Your task to perform on an android device: turn off wifi Image 0: 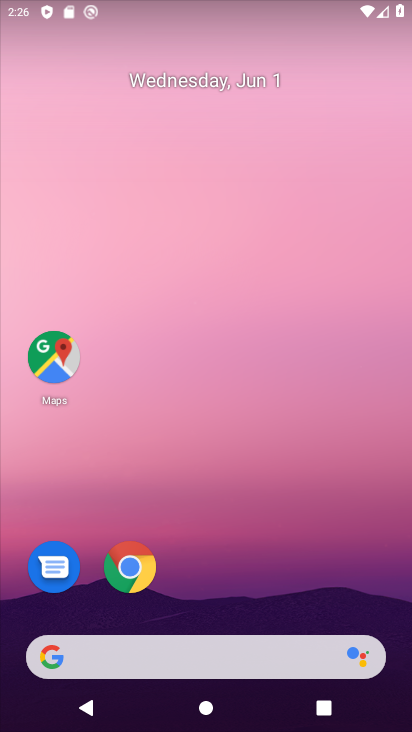
Step 0: drag from (184, 179) to (268, 614)
Your task to perform on an android device: turn off wifi Image 1: 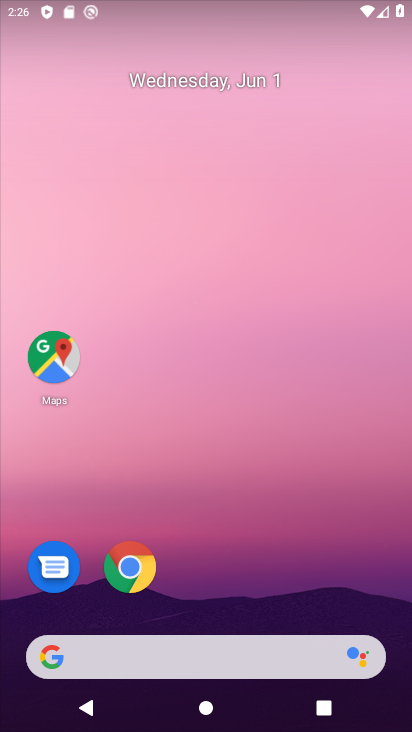
Step 1: drag from (176, 8) to (245, 588)
Your task to perform on an android device: turn off wifi Image 2: 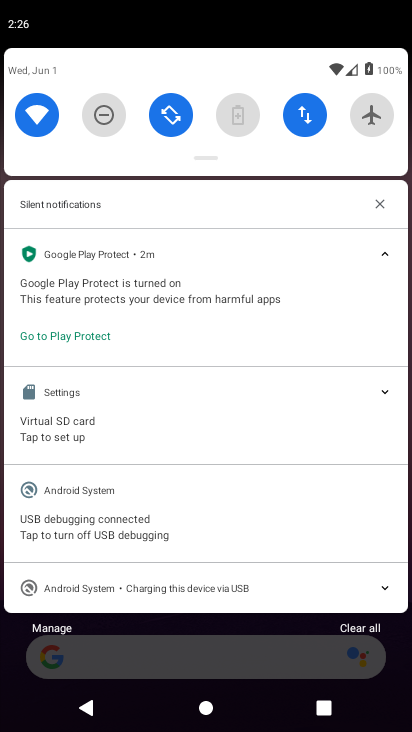
Step 2: click (45, 125)
Your task to perform on an android device: turn off wifi Image 3: 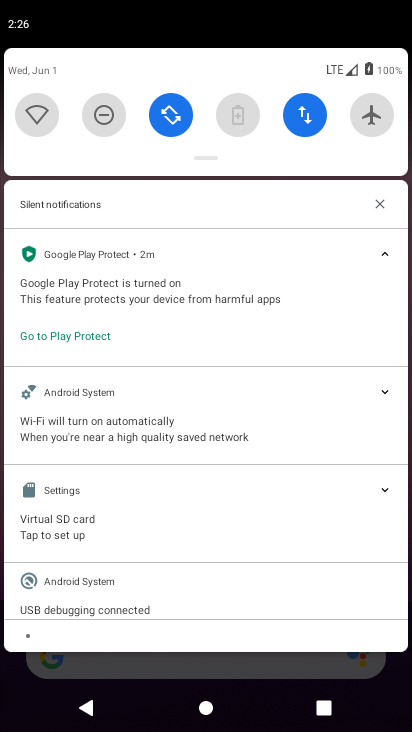
Step 3: task complete